Your task to perform on an android device: turn pop-ups off in chrome Image 0: 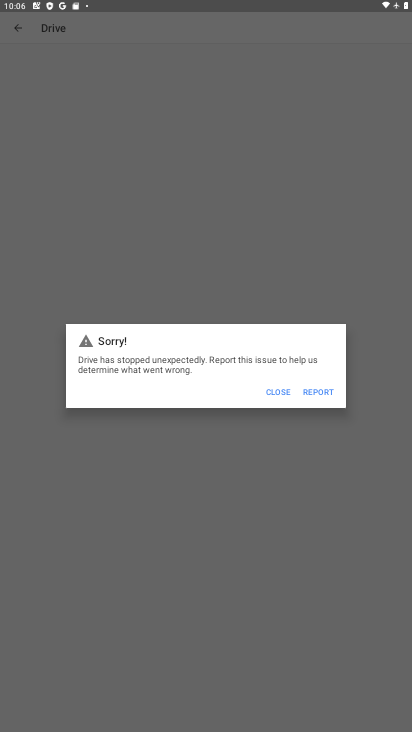
Step 0: task complete